Your task to perform on an android device: change notification settings in the gmail app Image 0: 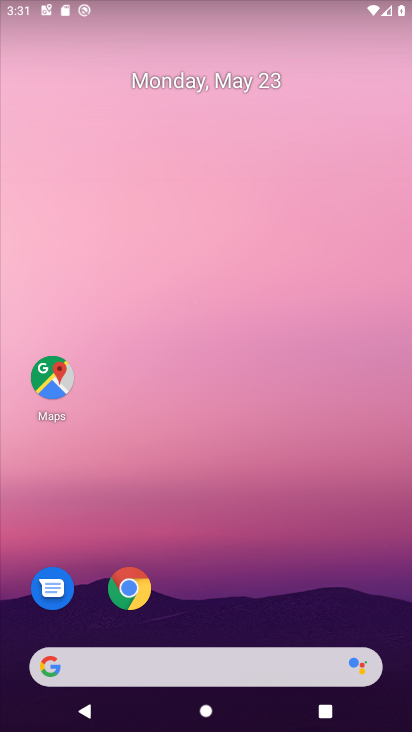
Step 0: drag from (201, 543) to (285, 114)
Your task to perform on an android device: change notification settings in the gmail app Image 1: 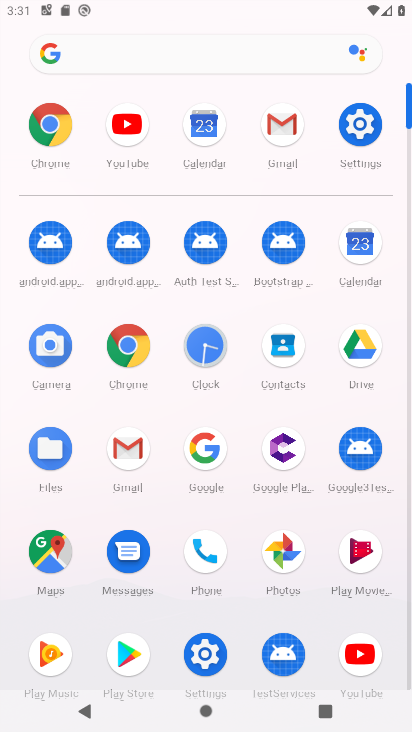
Step 1: click (132, 453)
Your task to perform on an android device: change notification settings in the gmail app Image 2: 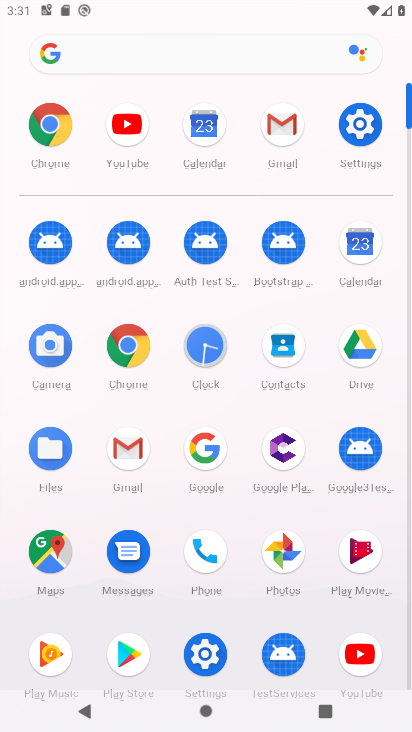
Step 2: click (132, 453)
Your task to perform on an android device: change notification settings in the gmail app Image 3: 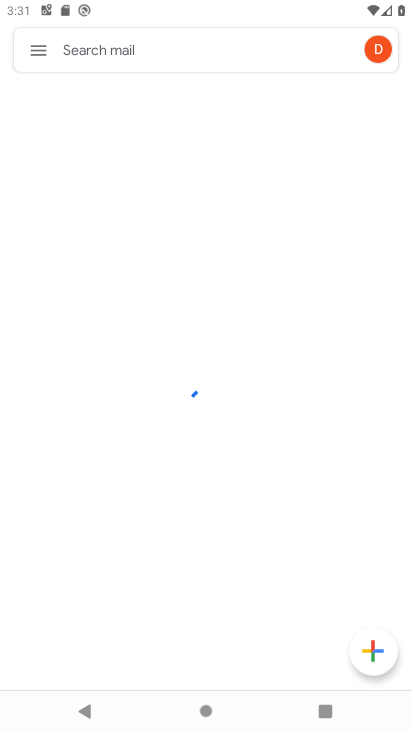
Step 3: drag from (197, 523) to (188, 146)
Your task to perform on an android device: change notification settings in the gmail app Image 4: 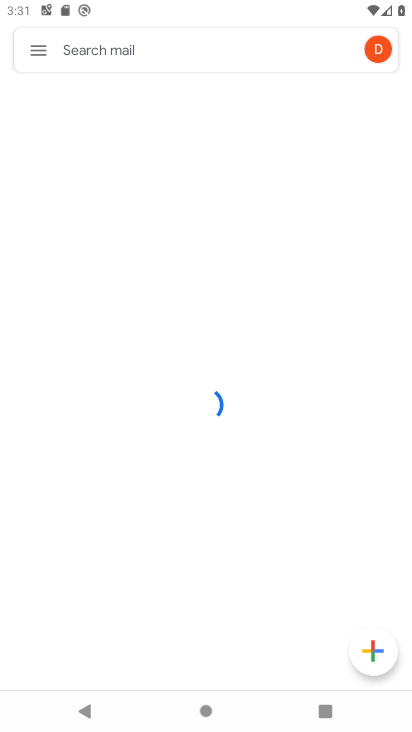
Step 4: click (31, 42)
Your task to perform on an android device: change notification settings in the gmail app Image 5: 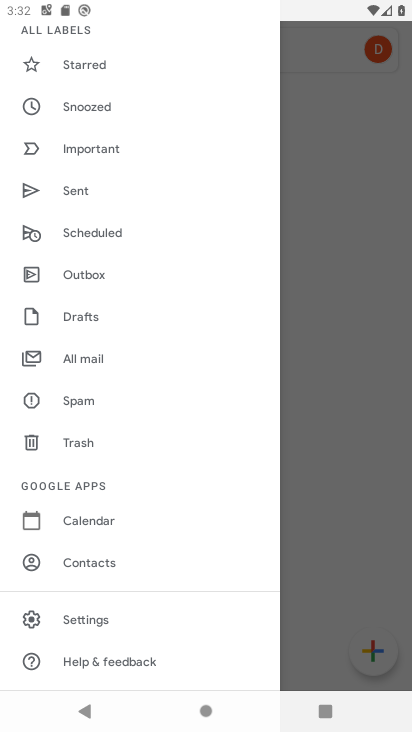
Step 5: drag from (108, 563) to (168, 62)
Your task to perform on an android device: change notification settings in the gmail app Image 6: 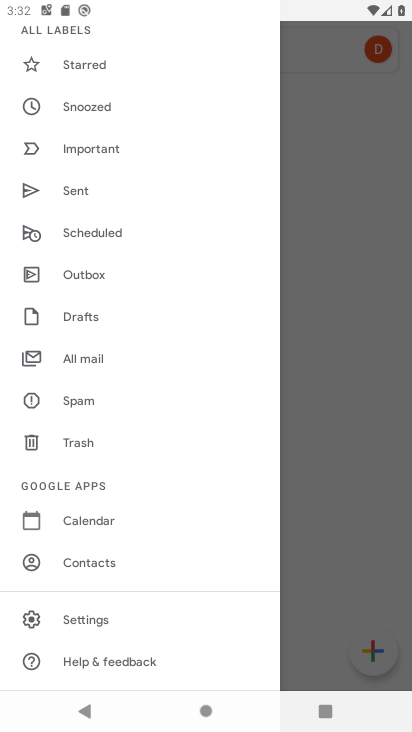
Step 6: click (75, 616)
Your task to perform on an android device: change notification settings in the gmail app Image 7: 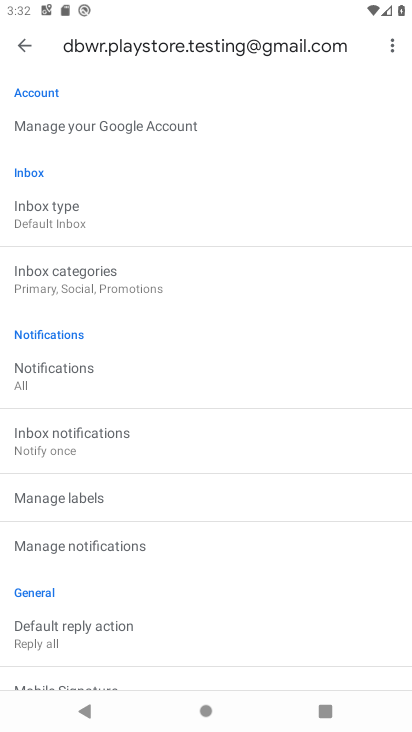
Step 7: click (120, 552)
Your task to perform on an android device: change notification settings in the gmail app Image 8: 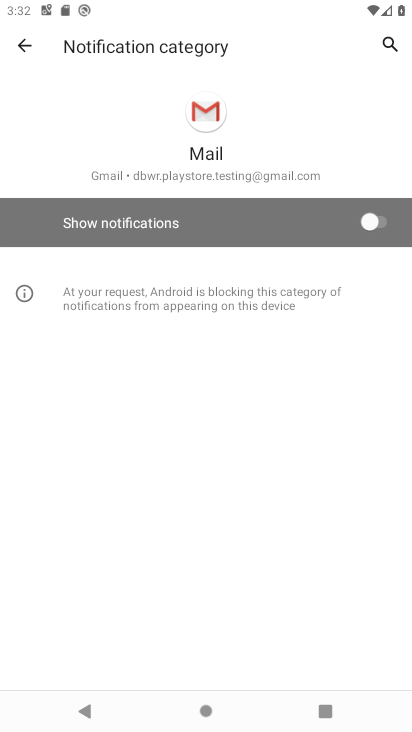
Step 8: click (368, 221)
Your task to perform on an android device: change notification settings in the gmail app Image 9: 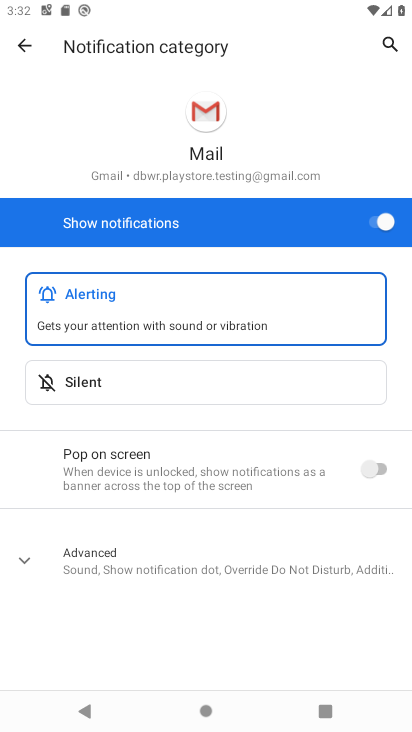
Step 9: task complete